Your task to perform on an android device: open app "Google Chrome" Image 0: 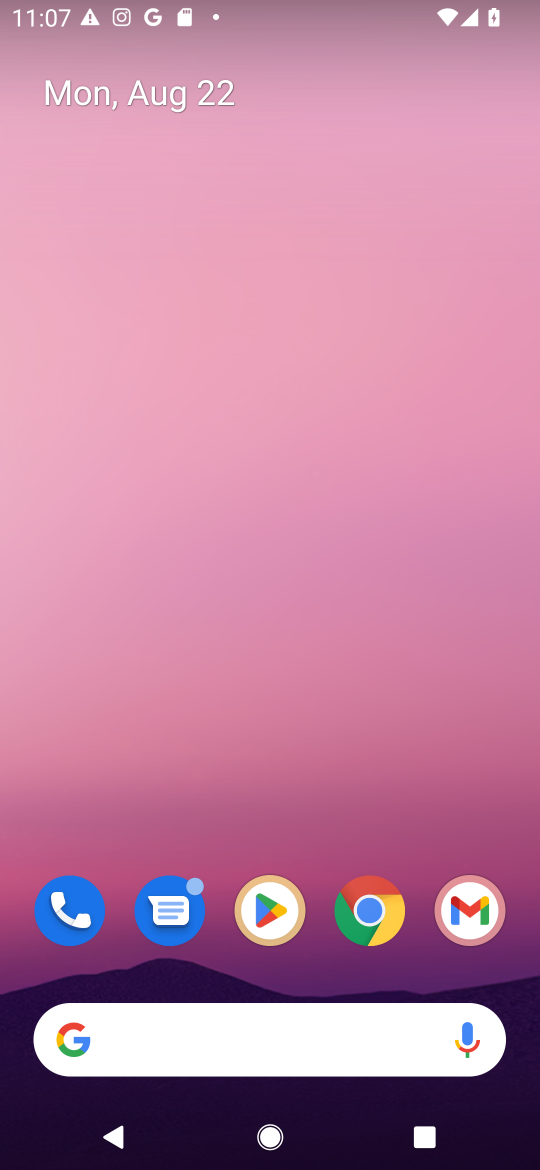
Step 0: click (285, 922)
Your task to perform on an android device: open app "Google Chrome" Image 1: 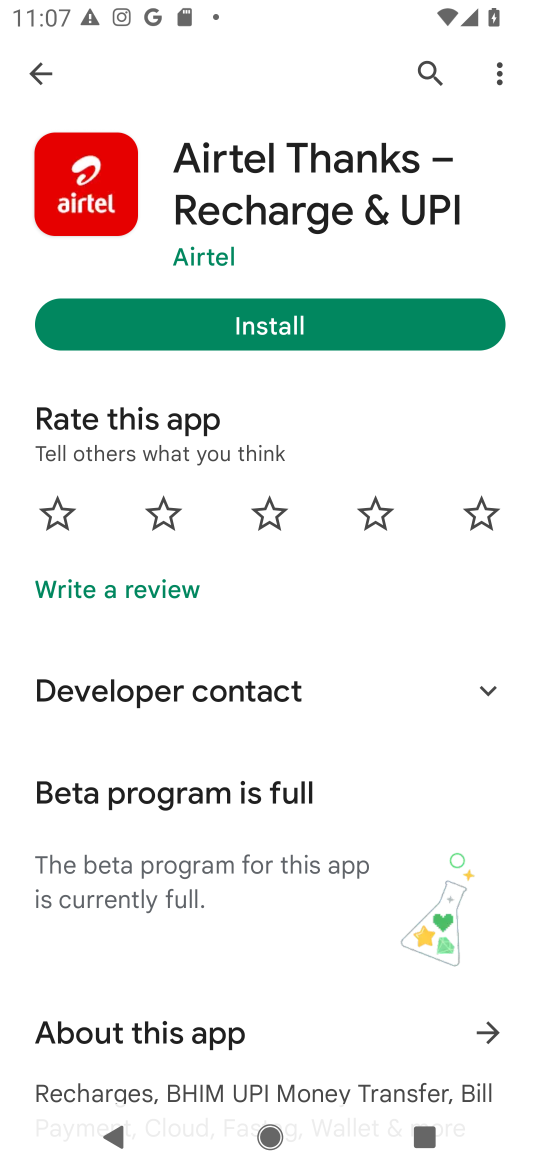
Step 1: click (420, 74)
Your task to perform on an android device: open app "Google Chrome" Image 2: 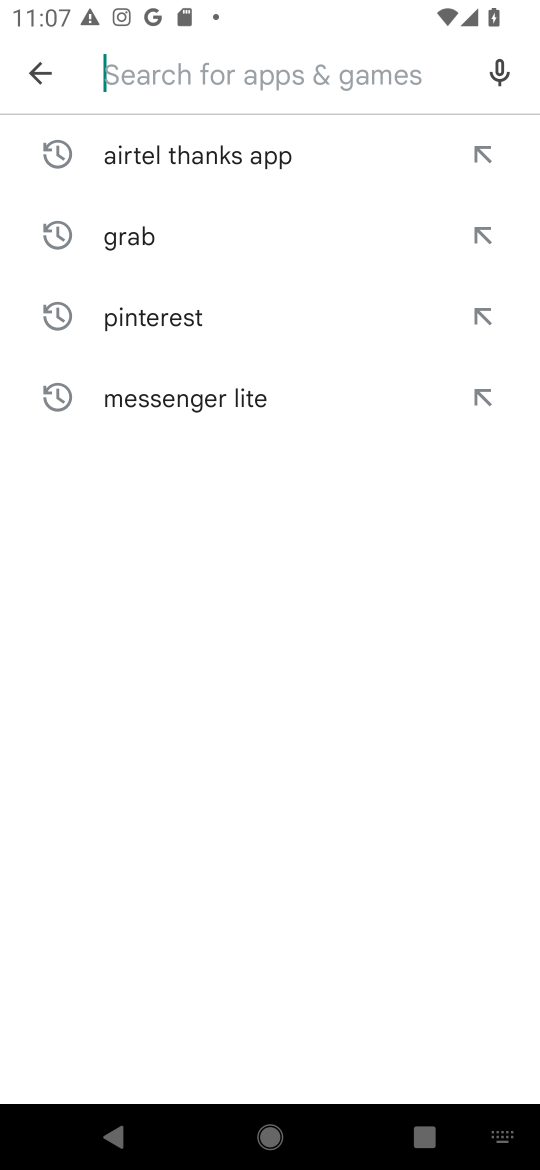
Step 2: click (437, 76)
Your task to perform on an android device: open app "Google Chrome" Image 3: 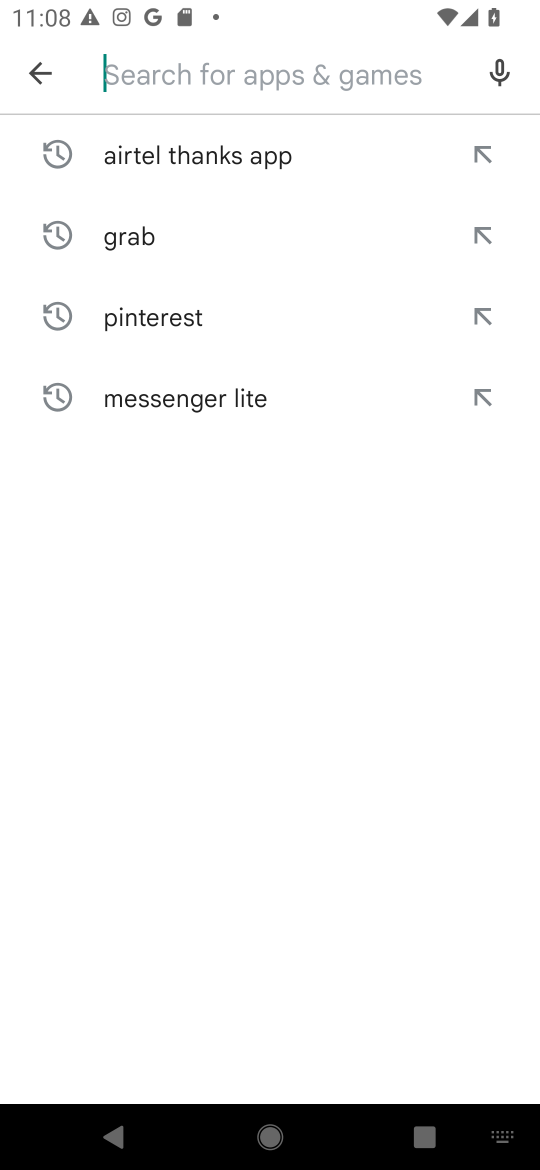
Step 3: type "Google Chrome"
Your task to perform on an android device: open app "Google Chrome" Image 4: 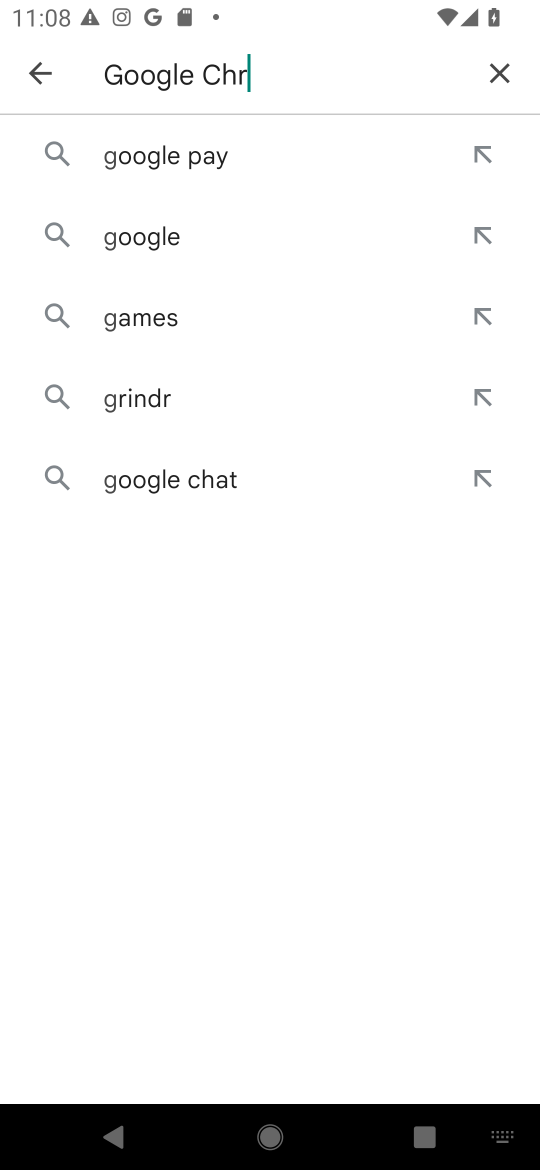
Step 4: type ""
Your task to perform on an android device: open app "Google Chrome" Image 5: 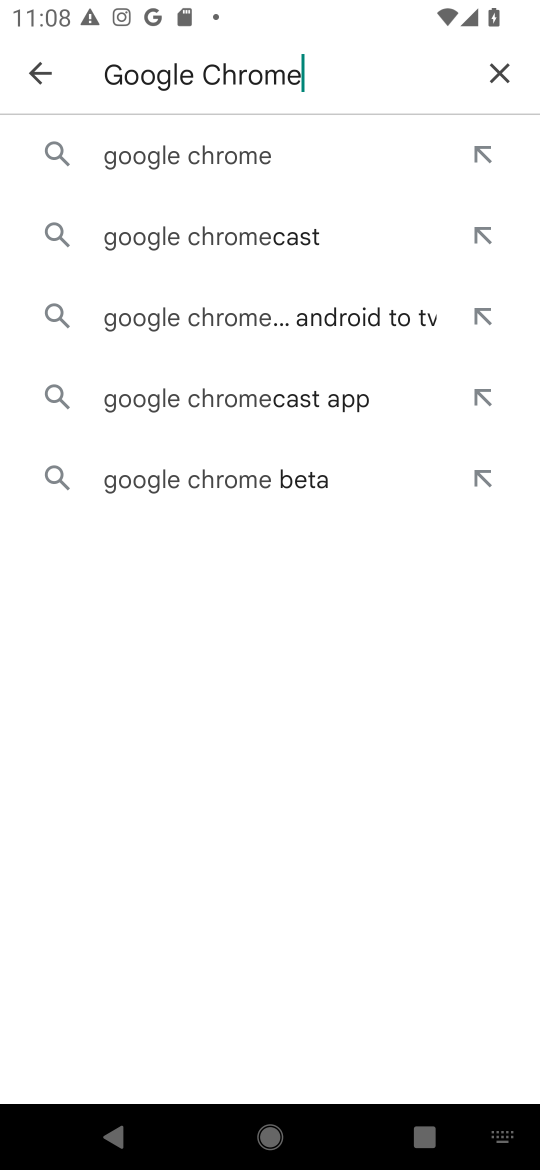
Step 5: click (150, 151)
Your task to perform on an android device: open app "Google Chrome" Image 6: 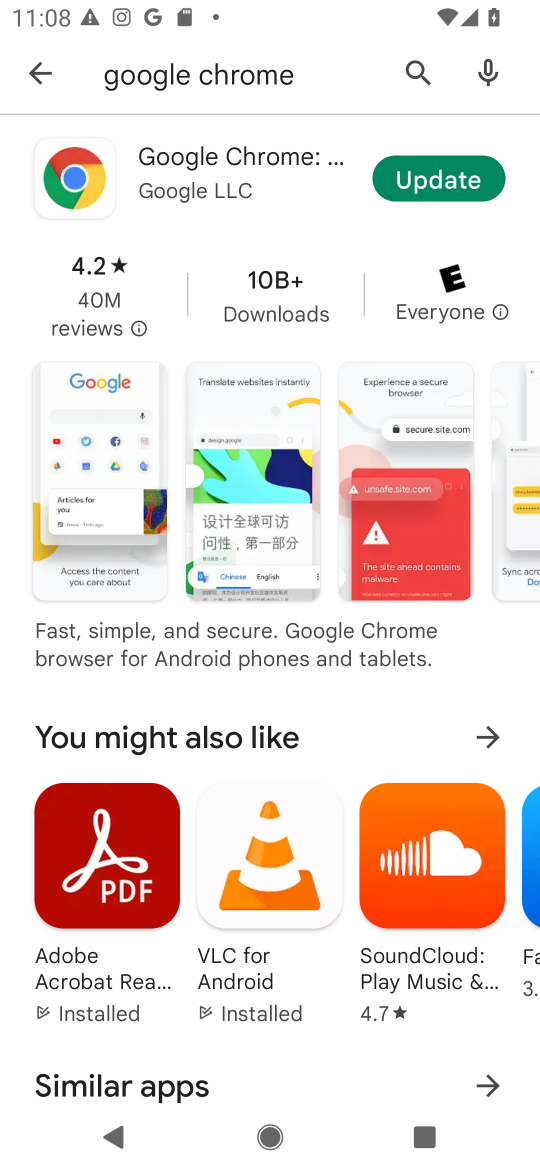
Step 6: click (215, 176)
Your task to perform on an android device: open app "Google Chrome" Image 7: 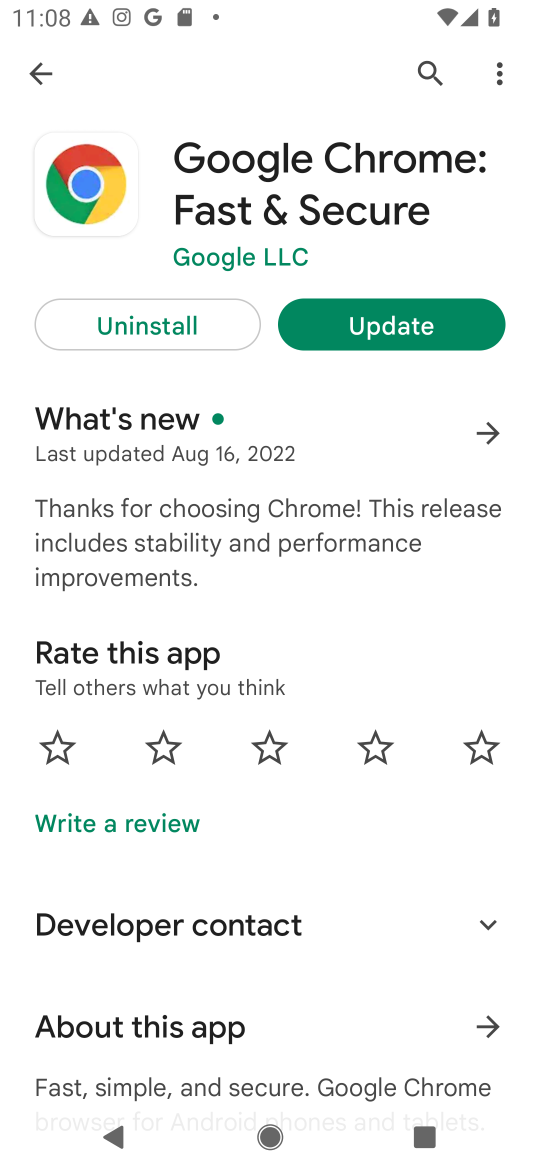
Step 7: click (380, 325)
Your task to perform on an android device: open app "Google Chrome" Image 8: 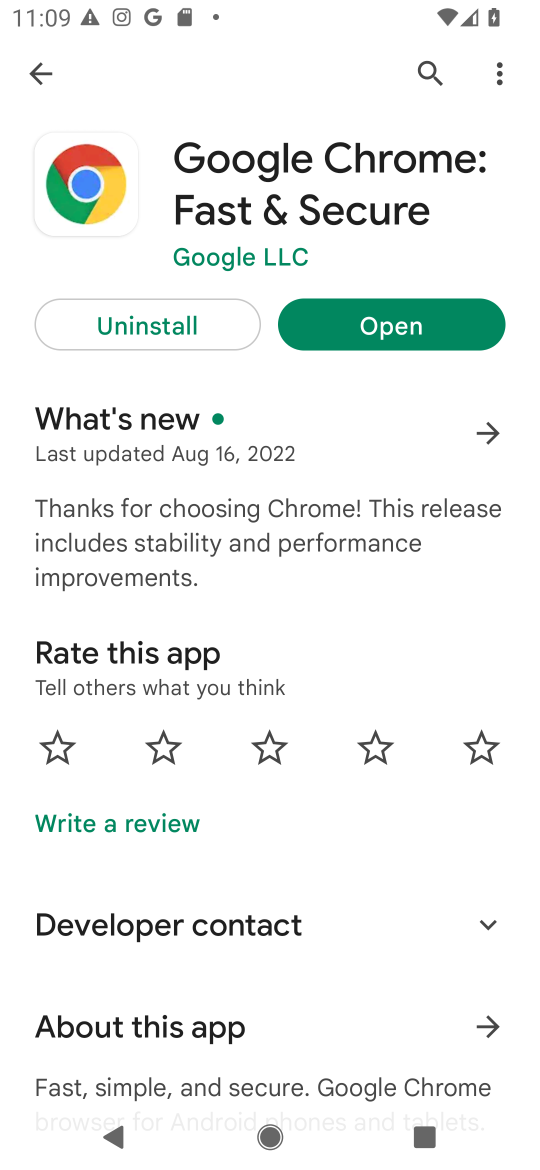
Step 8: click (368, 310)
Your task to perform on an android device: open app "Google Chrome" Image 9: 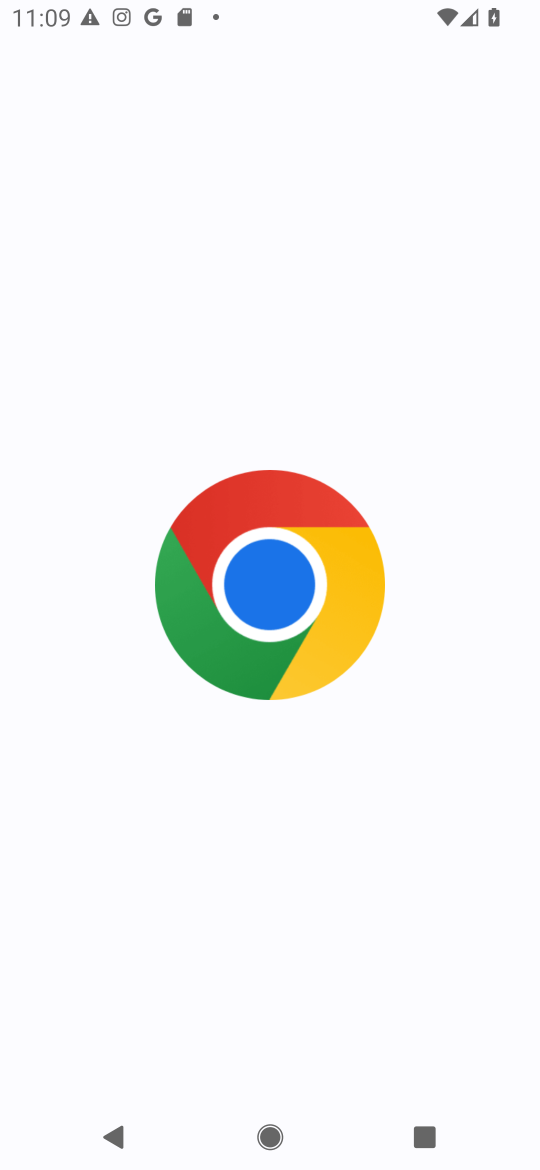
Step 9: task complete